Your task to perform on an android device: Open Google Chrome and click the shortcut for Amazon.com Image 0: 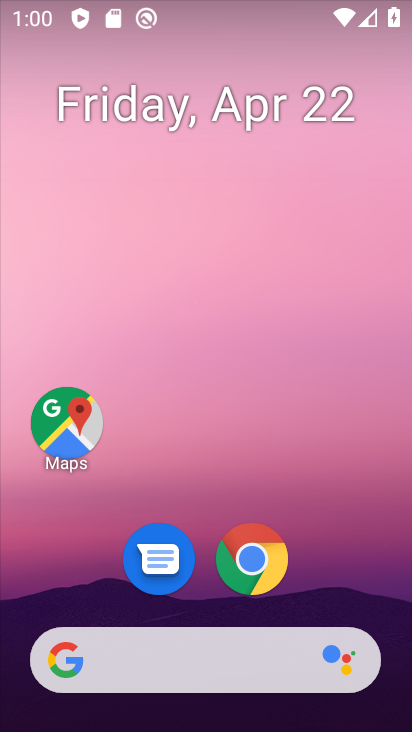
Step 0: drag from (385, 625) to (299, 89)
Your task to perform on an android device: Open Google Chrome and click the shortcut for Amazon.com Image 1: 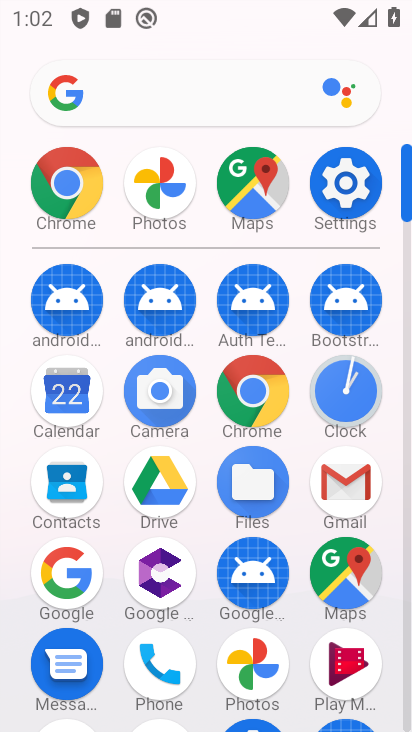
Step 1: click (263, 402)
Your task to perform on an android device: Open Google Chrome and click the shortcut for Amazon.com Image 2: 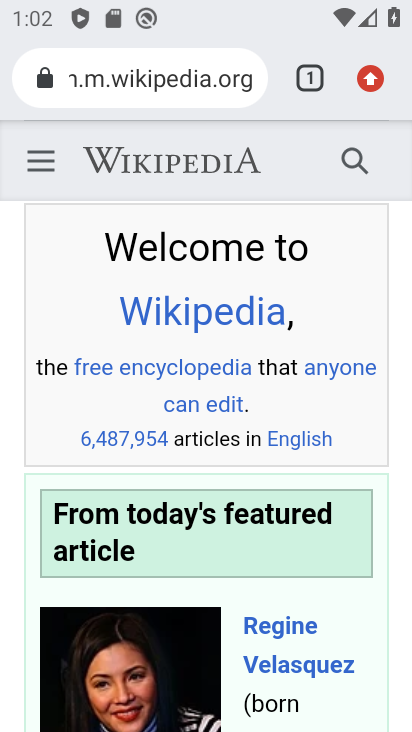
Step 2: press back button
Your task to perform on an android device: Open Google Chrome and click the shortcut for Amazon.com Image 3: 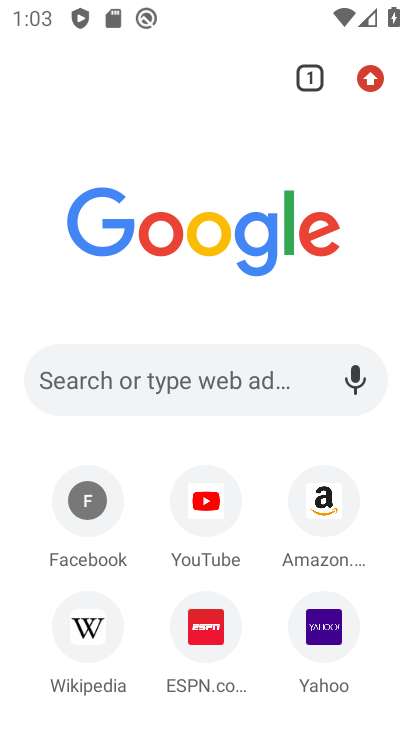
Step 3: click (322, 503)
Your task to perform on an android device: Open Google Chrome and click the shortcut for Amazon.com Image 4: 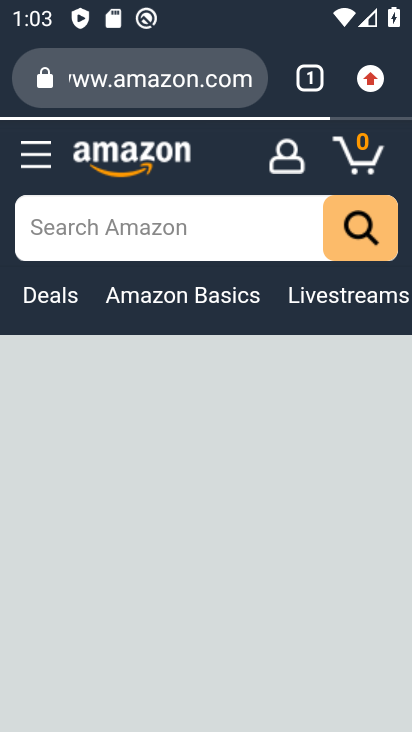
Step 4: task complete